Your task to perform on an android device: turn off airplane mode Image 0: 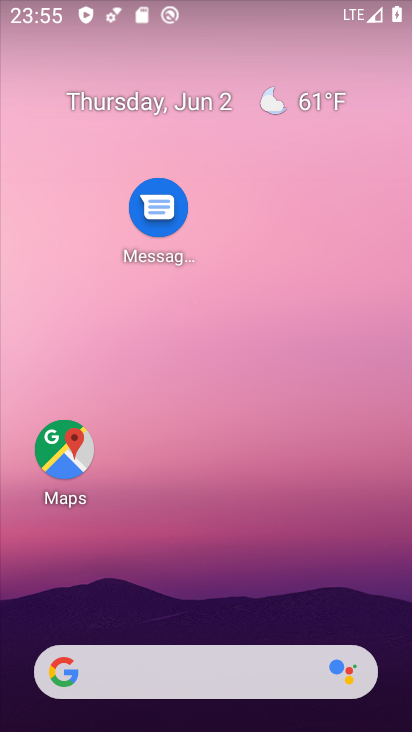
Step 0: drag from (248, 637) to (134, 66)
Your task to perform on an android device: turn off airplane mode Image 1: 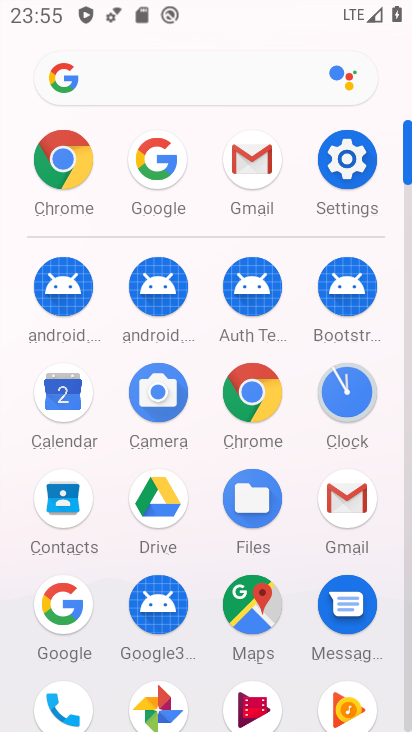
Step 1: click (331, 151)
Your task to perform on an android device: turn off airplane mode Image 2: 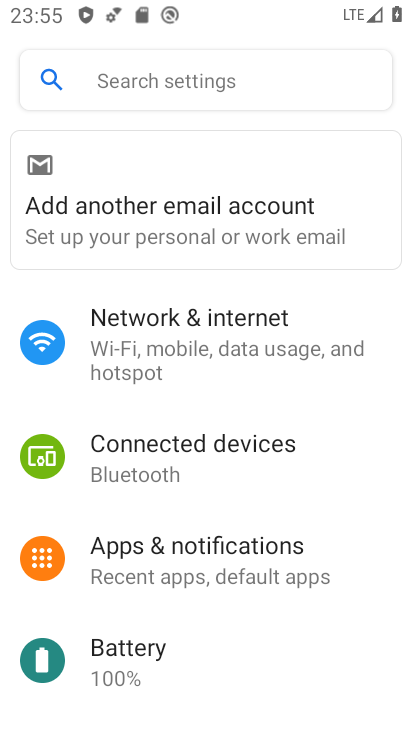
Step 2: click (185, 324)
Your task to perform on an android device: turn off airplane mode Image 3: 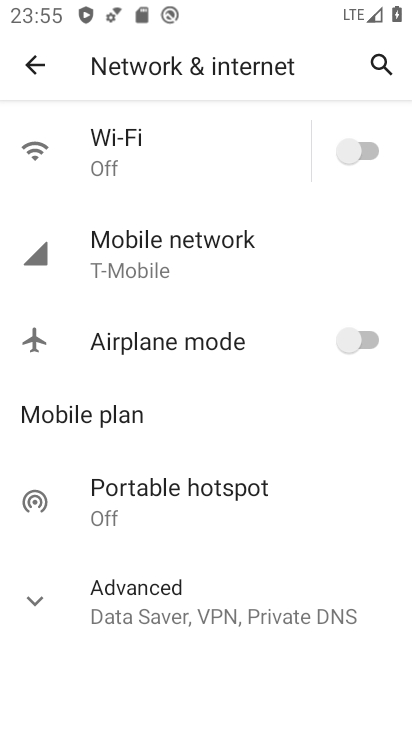
Step 3: task complete